Your task to perform on an android device: Open Android settings Image 0: 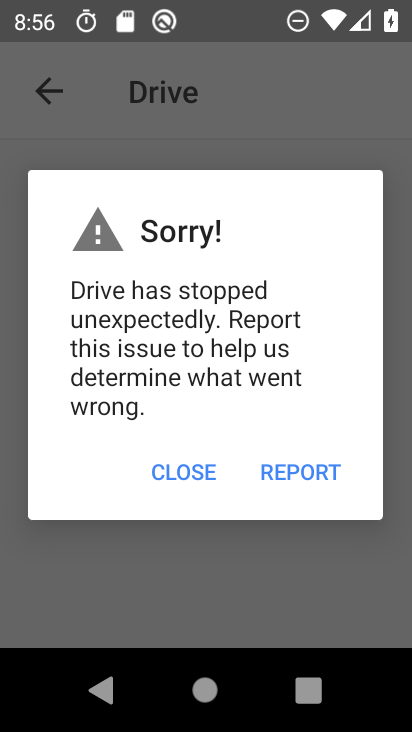
Step 0: press home button
Your task to perform on an android device: Open Android settings Image 1: 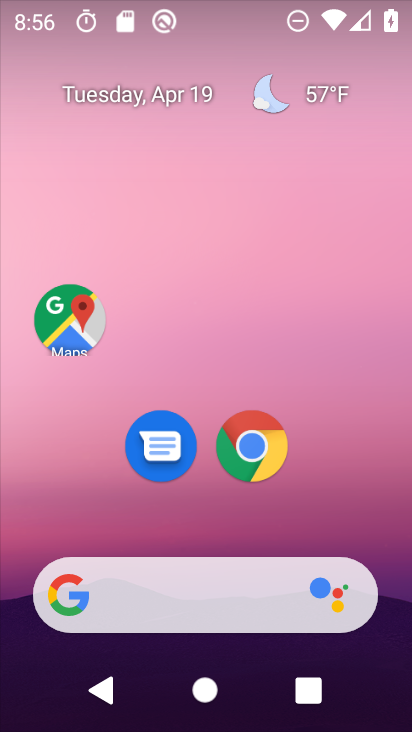
Step 1: drag from (358, 484) to (302, 110)
Your task to perform on an android device: Open Android settings Image 2: 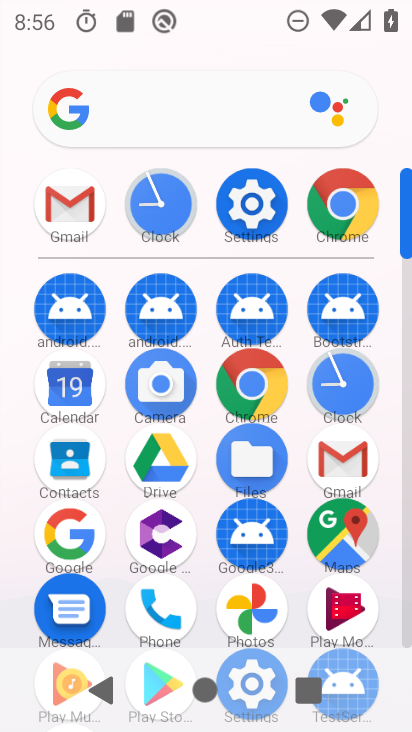
Step 2: click (268, 201)
Your task to perform on an android device: Open Android settings Image 3: 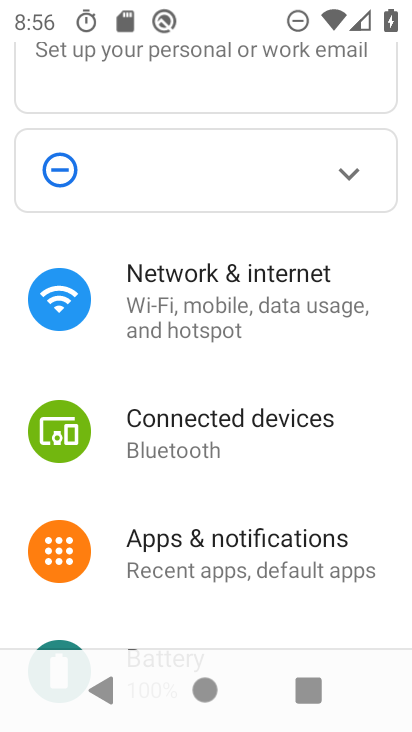
Step 3: drag from (230, 576) to (225, 202)
Your task to perform on an android device: Open Android settings Image 4: 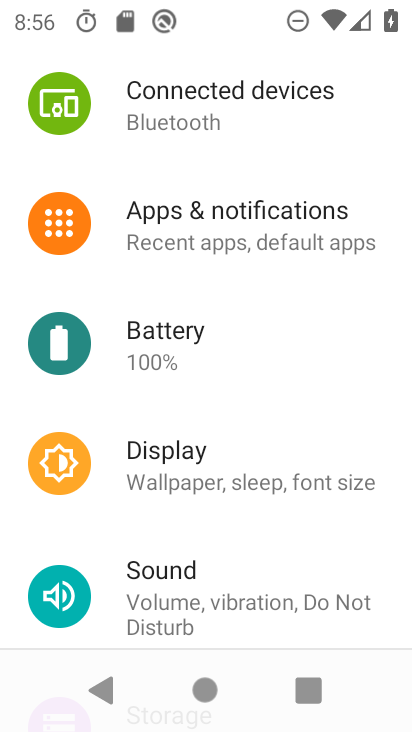
Step 4: drag from (140, 580) to (153, 139)
Your task to perform on an android device: Open Android settings Image 5: 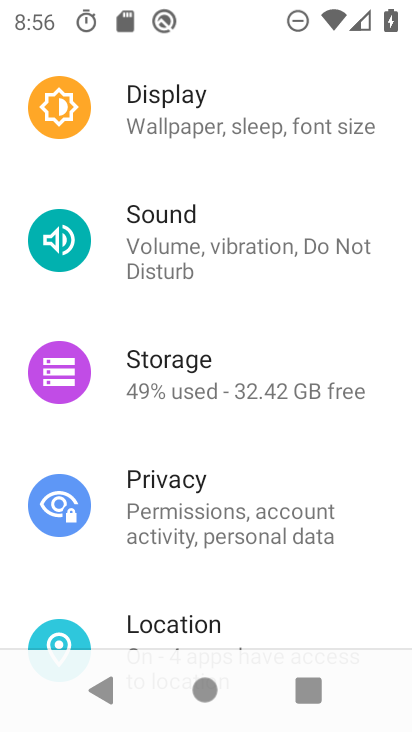
Step 5: drag from (186, 593) to (174, 200)
Your task to perform on an android device: Open Android settings Image 6: 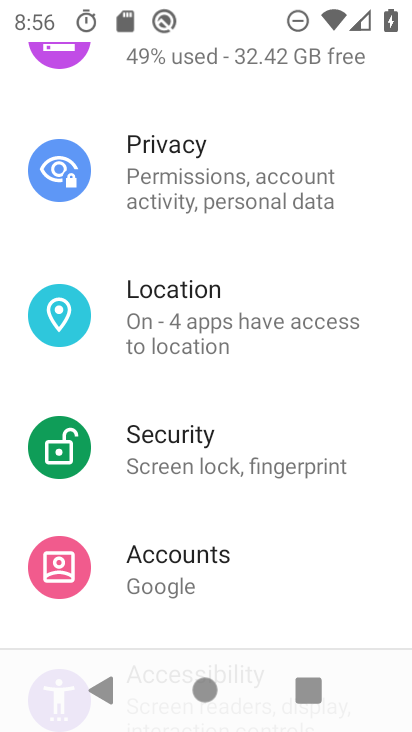
Step 6: drag from (162, 587) to (174, 236)
Your task to perform on an android device: Open Android settings Image 7: 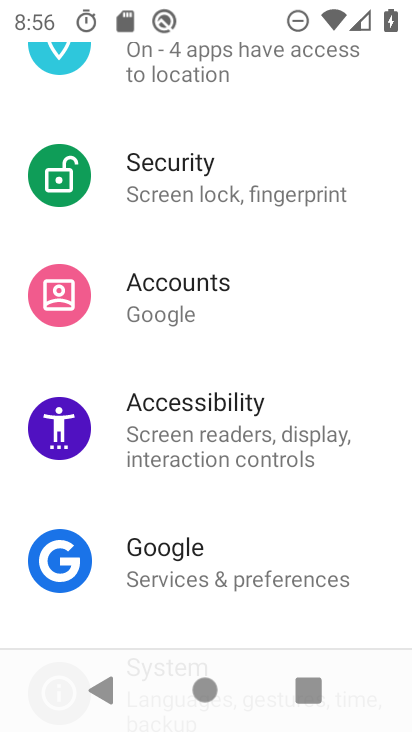
Step 7: drag from (164, 604) to (200, 173)
Your task to perform on an android device: Open Android settings Image 8: 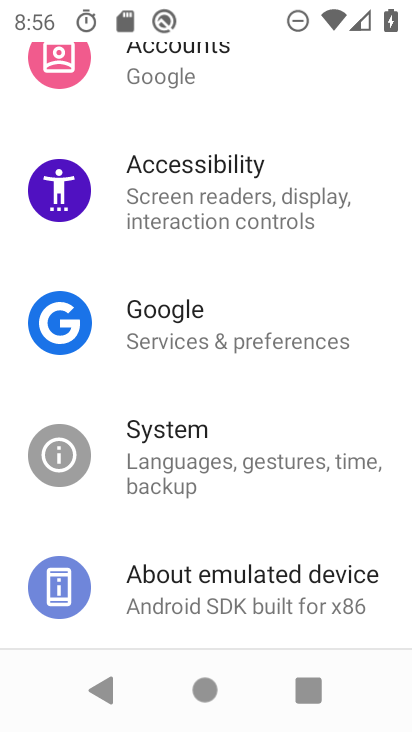
Step 8: click (134, 593)
Your task to perform on an android device: Open Android settings Image 9: 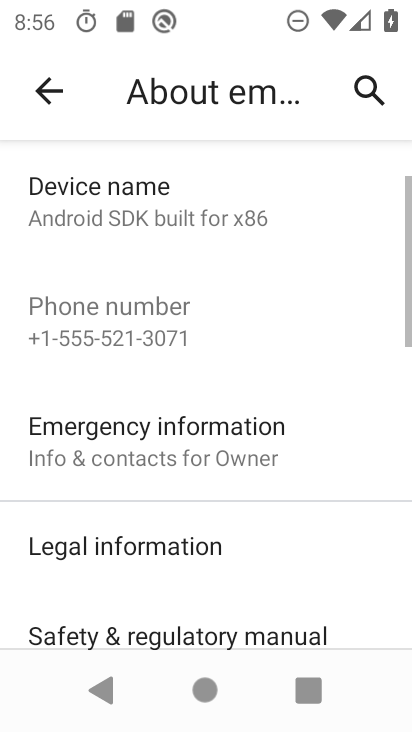
Step 9: drag from (199, 631) to (256, 213)
Your task to perform on an android device: Open Android settings Image 10: 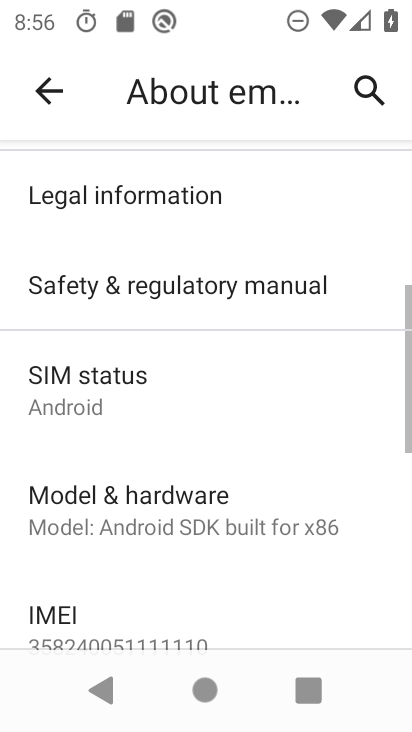
Step 10: drag from (166, 599) to (185, 307)
Your task to perform on an android device: Open Android settings Image 11: 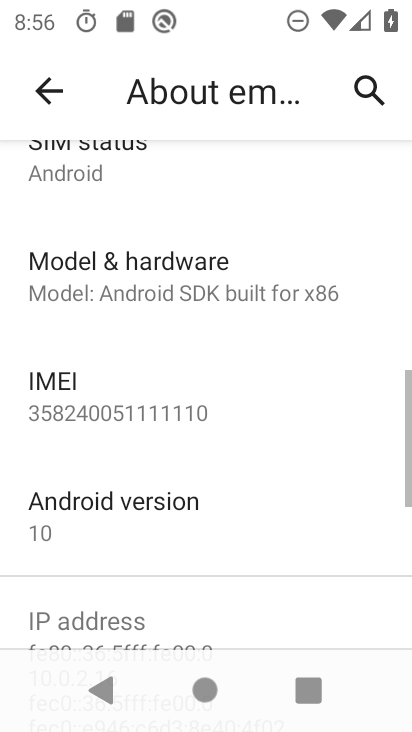
Step 11: click (125, 542)
Your task to perform on an android device: Open Android settings Image 12: 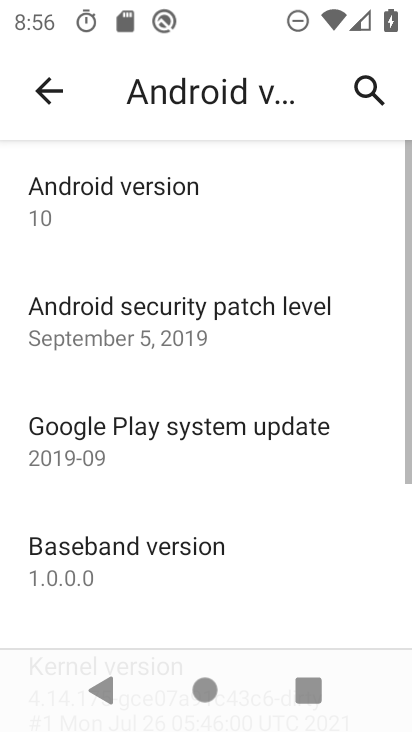
Step 12: task complete